Your task to perform on an android device: turn on airplane mode Image 0: 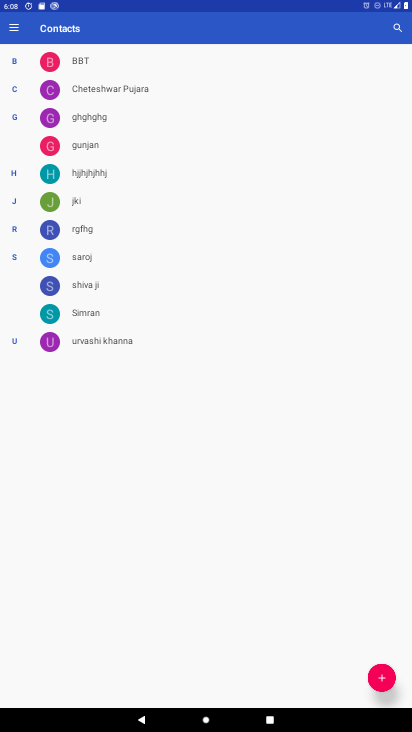
Step 0: press home button
Your task to perform on an android device: turn on airplane mode Image 1: 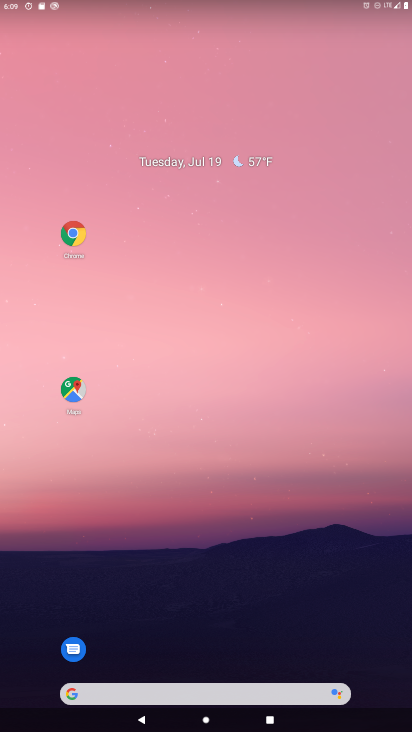
Step 1: click (72, 234)
Your task to perform on an android device: turn on airplane mode Image 2: 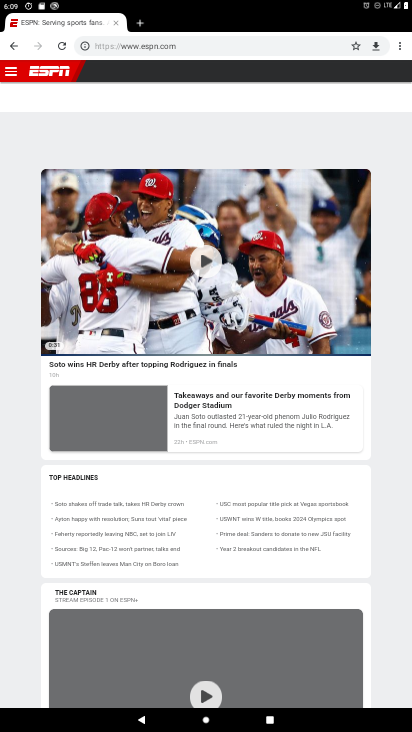
Step 2: press home button
Your task to perform on an android device: turn on airplane mode Image 3: 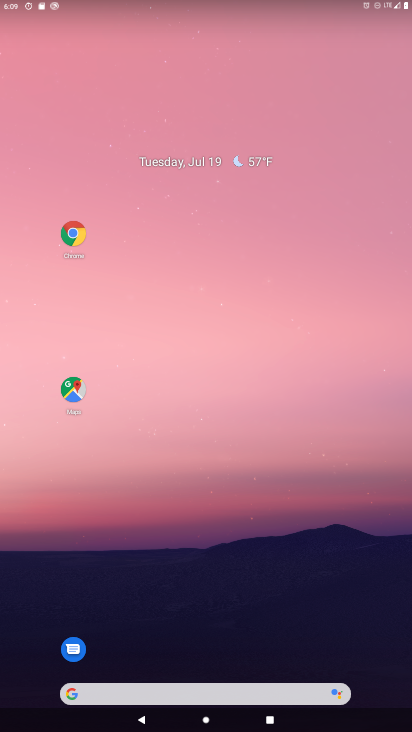
Step 3: drag from (178, 600) to (176, 77)
Your task to perform on an android device: turn on airplane mode Image 4: 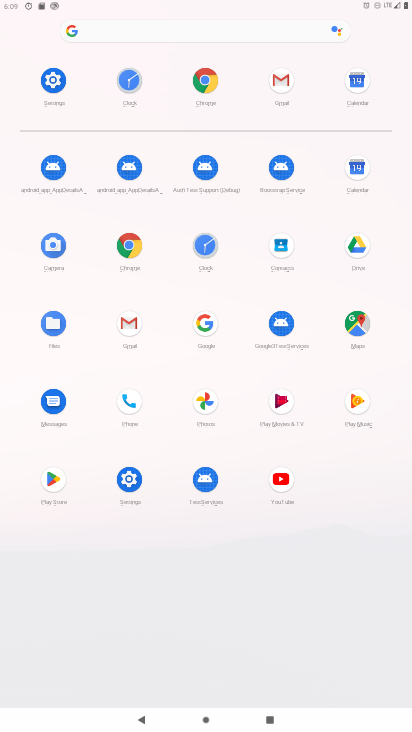
Step 4: click (55, 80)
Your task to perform on an android device: turn on airplane mode Image 5: 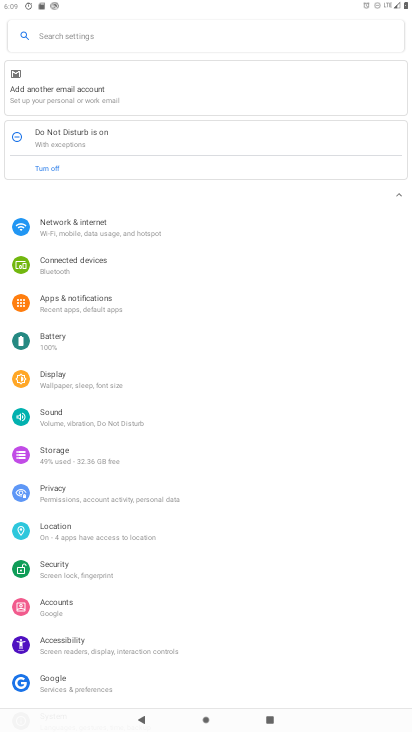
Step 5: click (99, 227)
Your task to perform on an android device: turn on airplane mode Image 6: 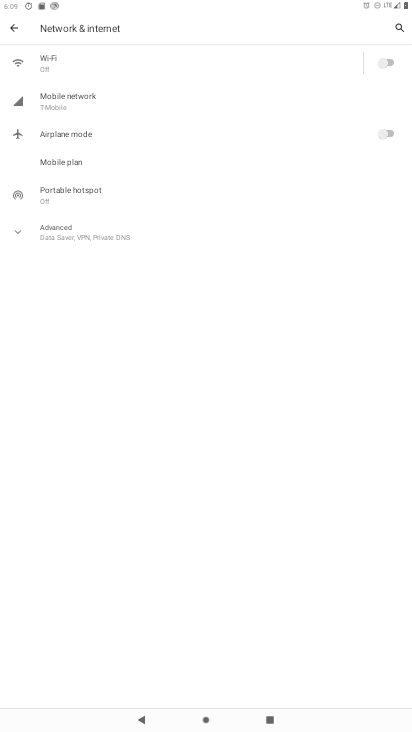
Step 6: click (395, 139)
Your task to perform on an android device: turn on airplane mode Image 7: 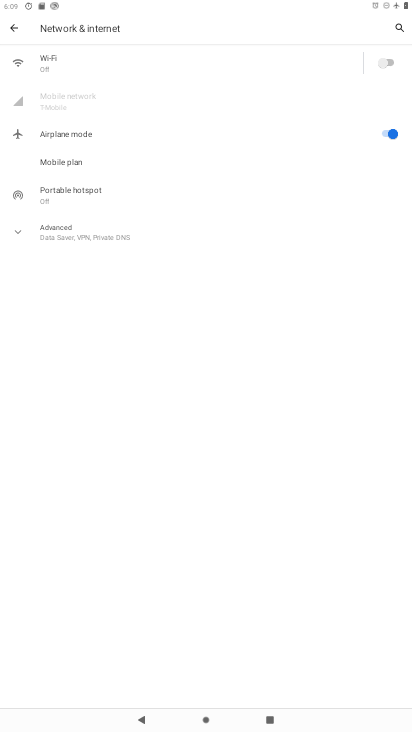
Step 7: task complete